Your task to perform on an android device: visit the assistant section in the google photos Image 0: 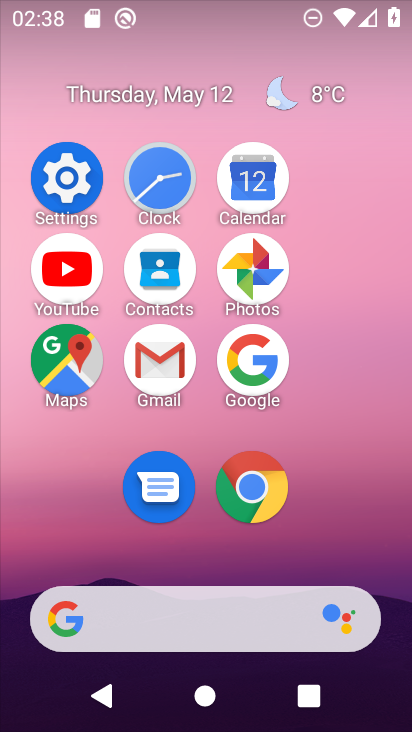
Step 0: click (264, 257)
Your task to perform on an android device: visit the assistant section in the google photos Image 1: 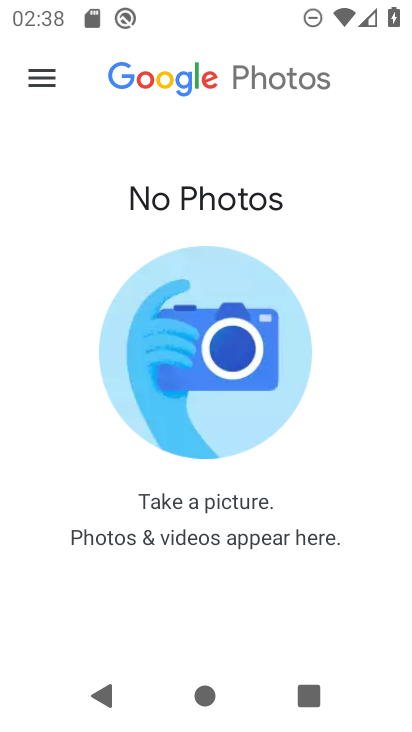
Step 1: task complete